Your task to perform on an android device: change keyboard looks Image 0: 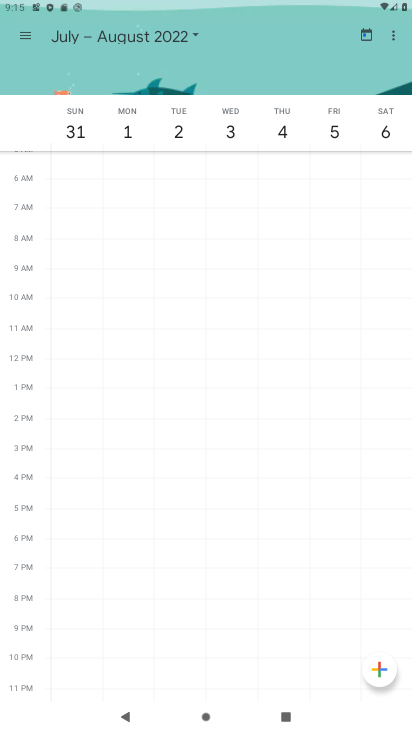
Step 0: press home button
Your task to perform on an android device: change keyboard looks Image 1: 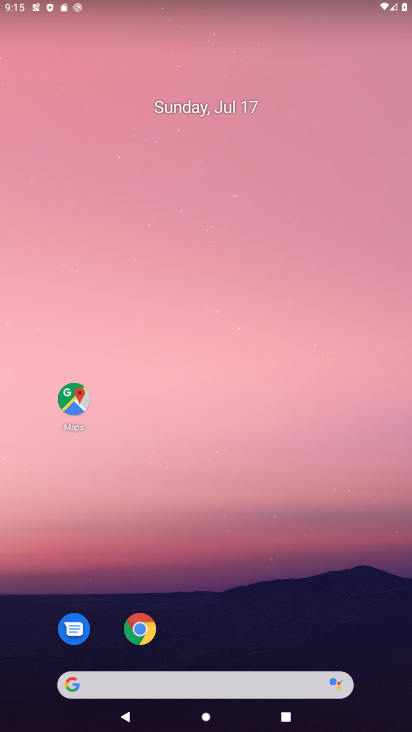
Step 1: click (222, 166)
Your task to perform on an android device: change keyboard looks Image 2: 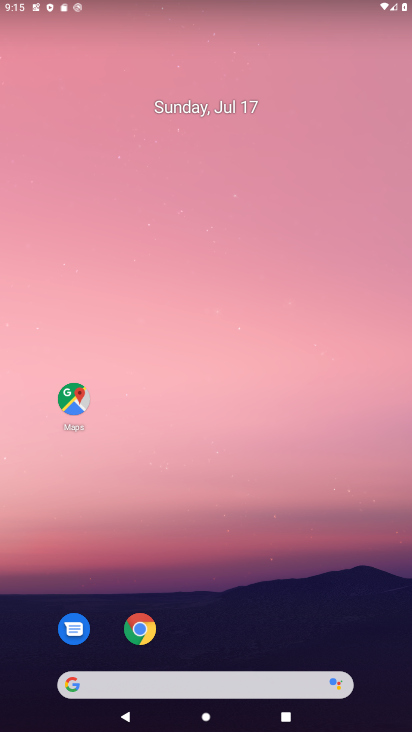
Step 2: drag from (225, 642) to (203, 1)
Your task to perform on an android device: change keyboard looks Image 3: 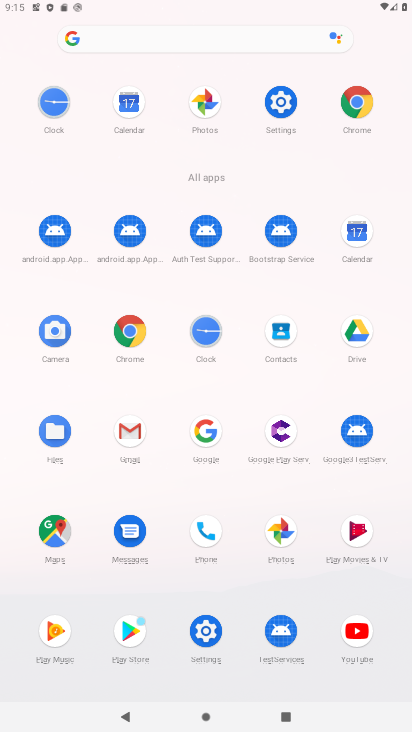
Step 3: click (196, 658)
Your task to perform on an android device: change keyboard looks Image 4: 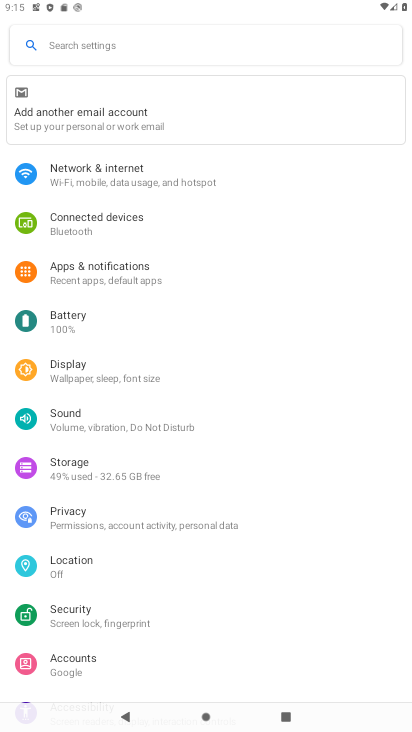
Step 4: drag from (139, 607) to (164, 375)
Your task to perform on an android device: change keyboard looks Image 5: 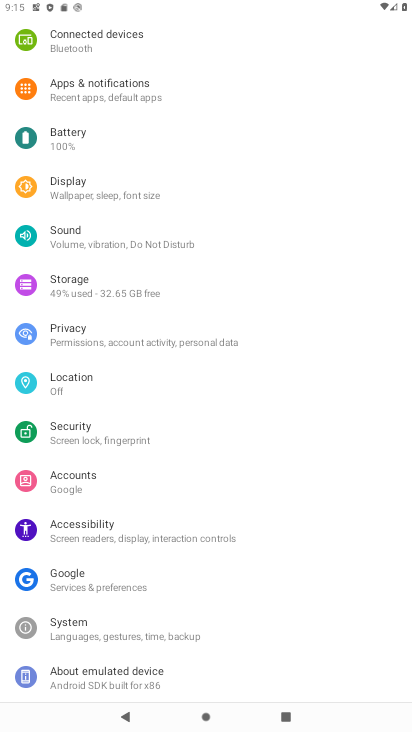
Step 5: click (109, 638)
Your task to perform on an android device: change keyboard looks Image 6: 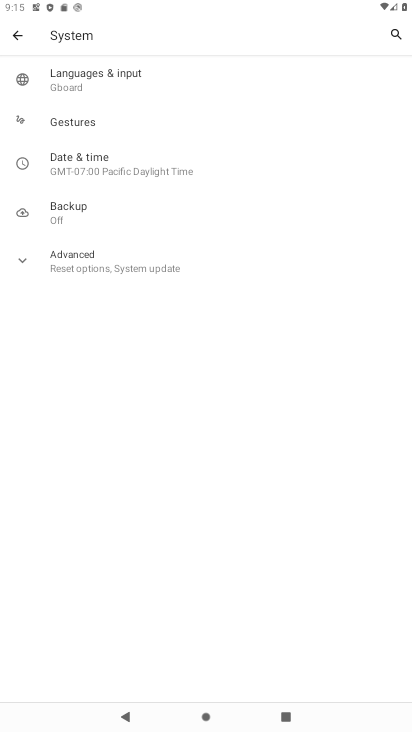
Step 6: click (111, 81)
Your task to perform on an android device: change keyboard looks Image 7: 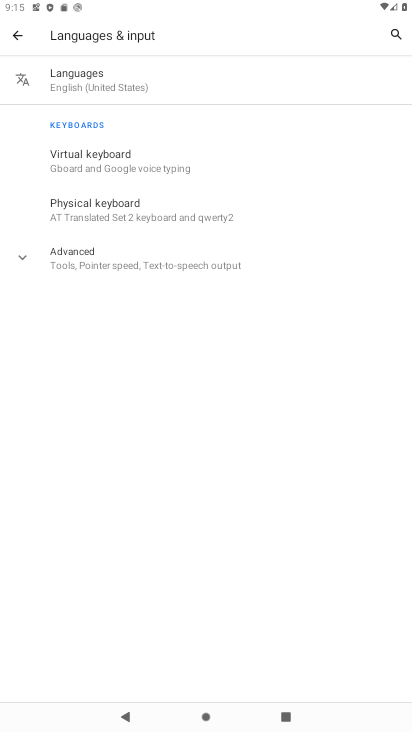
Step 7: click (128, 170)
Your task to perform on an android device: change keyboard looks Image 8: 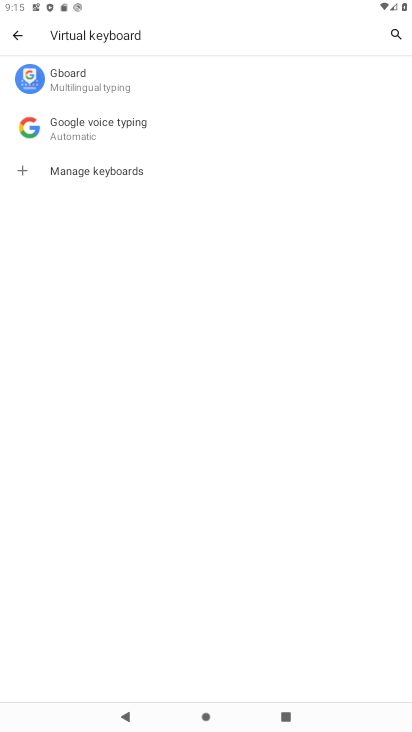
Step 8: click (89, 82)
Your task to perform on an android device: change keyboard looks Image 9: 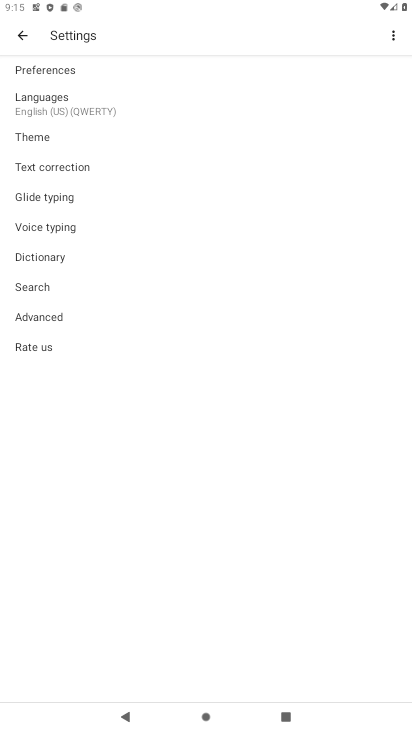
Step 9: click (55, 145)
Your task to perform on an android device: change keyboard looks Image 10: 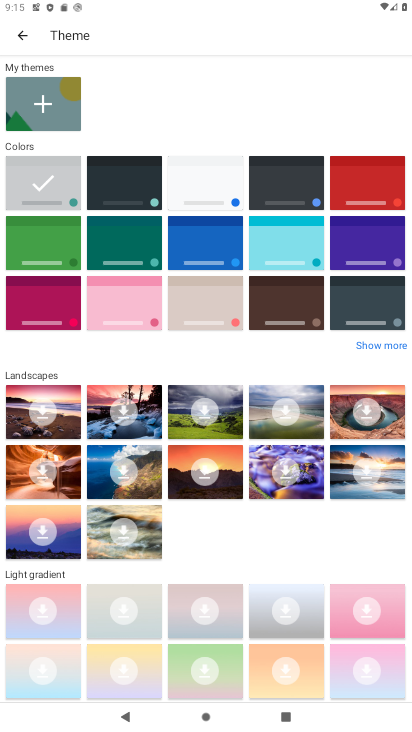
Step 10: click (117, 195)
Your task to perform on an android device: change keyboard looks Image 11: 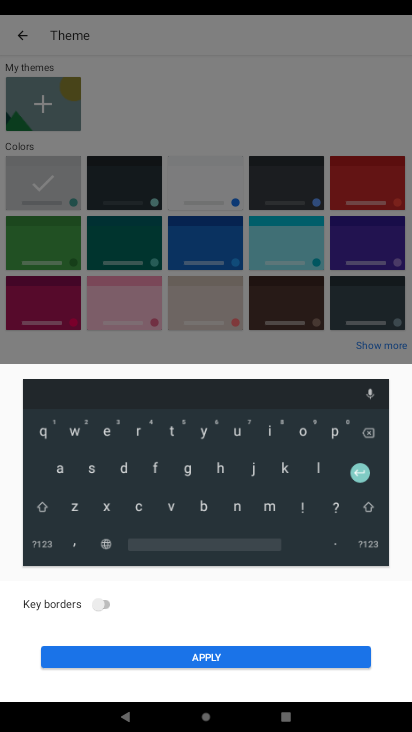
Step 11: click (228, 662)
Your task to perform on an android device: change keyboard looks Image 12: 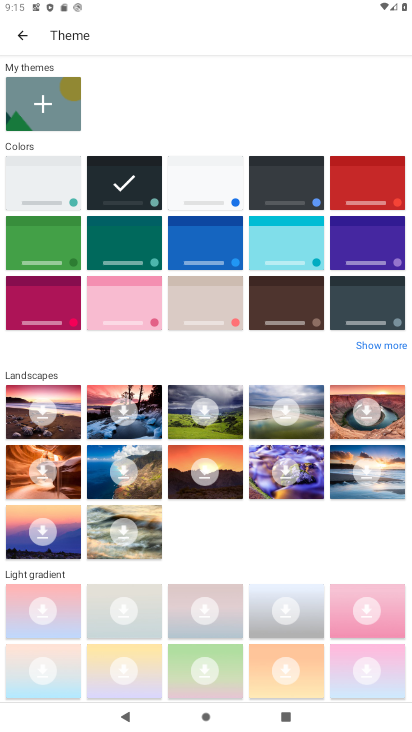
Step 12: task complete